Your task to perform on an android device: What's the weather like in Los Angeles? Image 0: 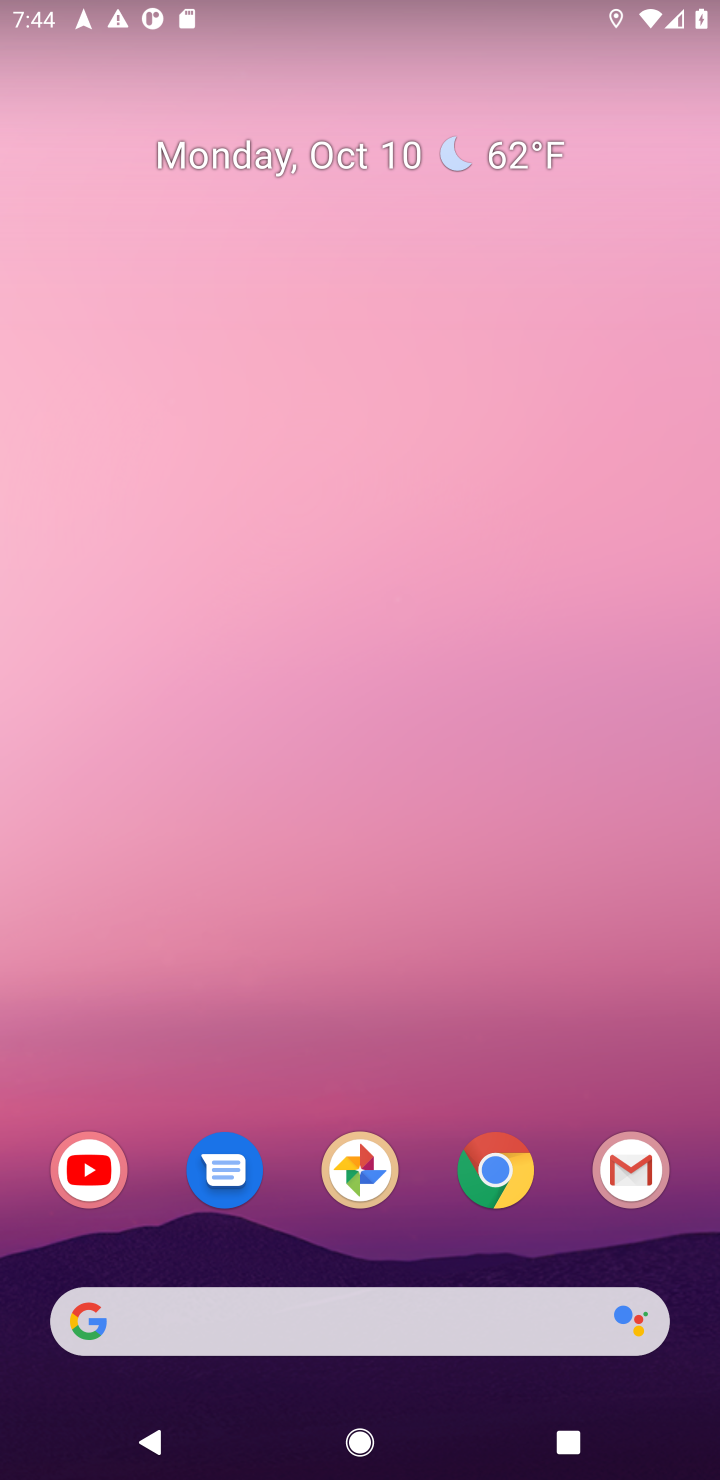
Step 0: click (486, 1171)
Your task to perform on an android device: What's the weather like in Los Angeles? Image 1: 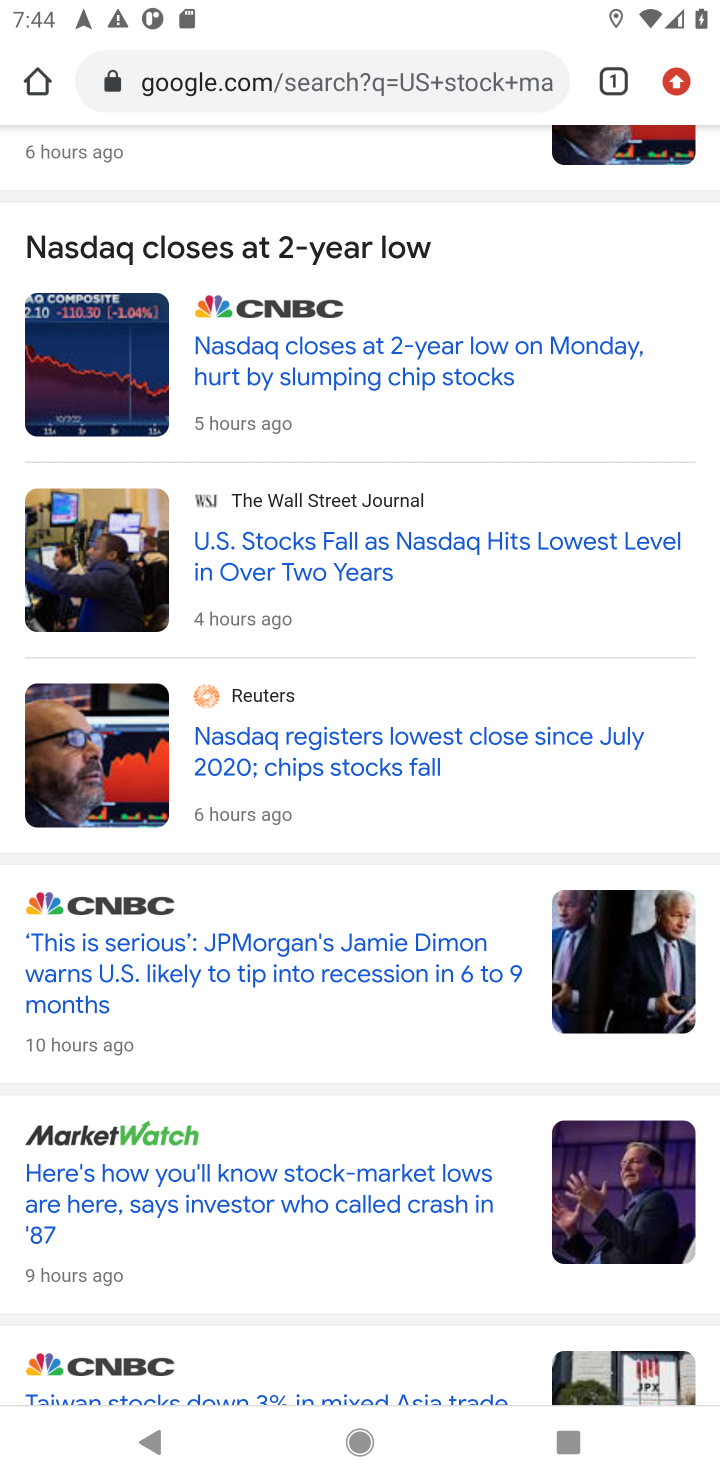
Step 1: click (343, 69)
Your task to perform on an android device: What's the weather like in Los Angeles? Image 2: 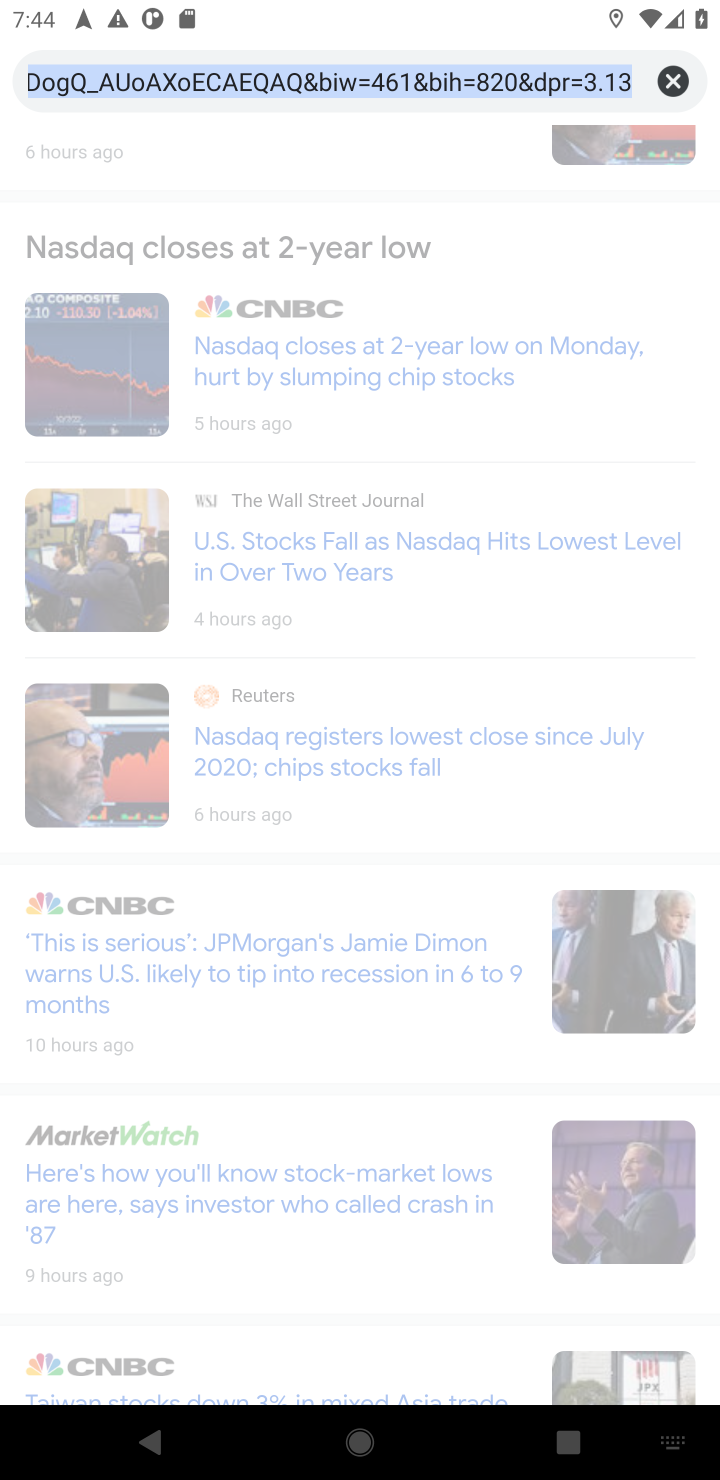
Step 2: type "weather like in Los Angeles?"
Your task to perform on an android device: What's the weather like in Los Angeles? Image 3: 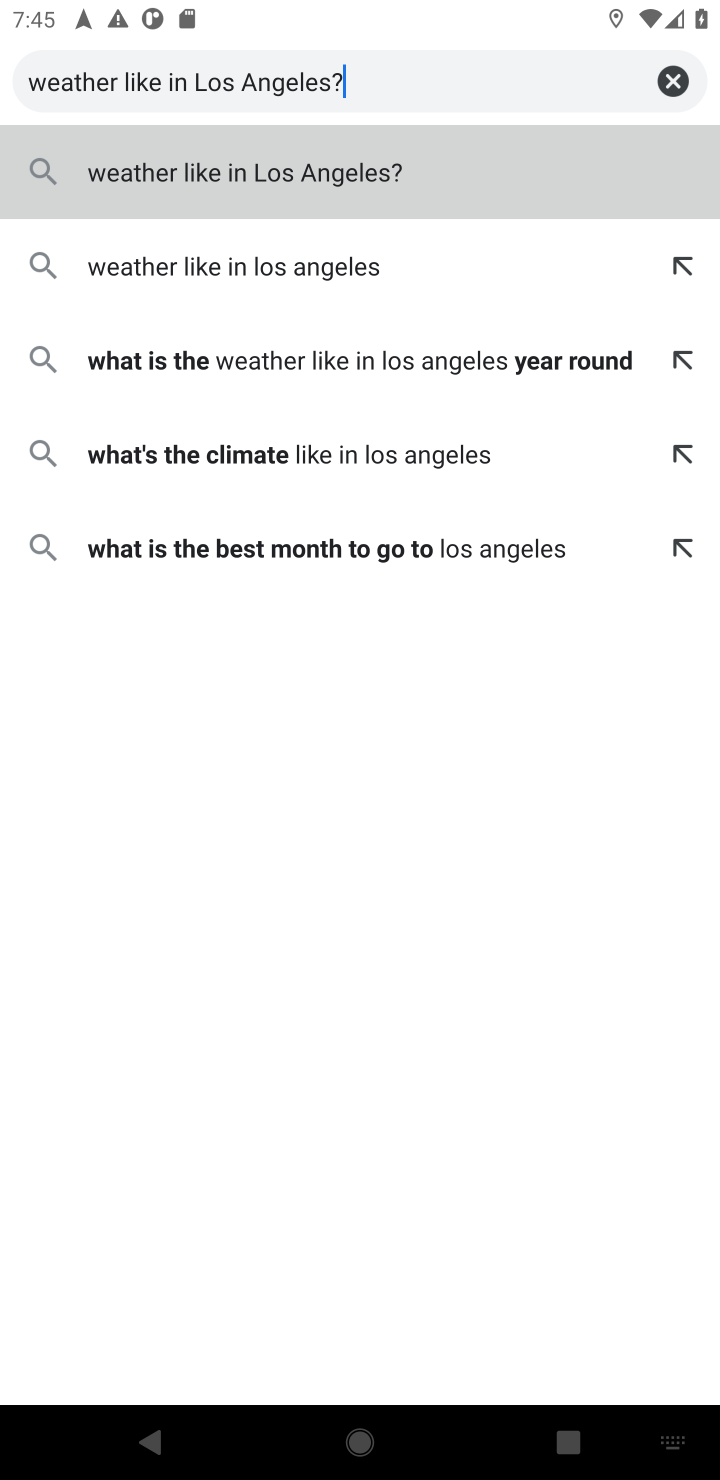
Step 3: click (427, 165)
Your task to perform on an android device: What's the weather like in Los Angeles? Image 4: 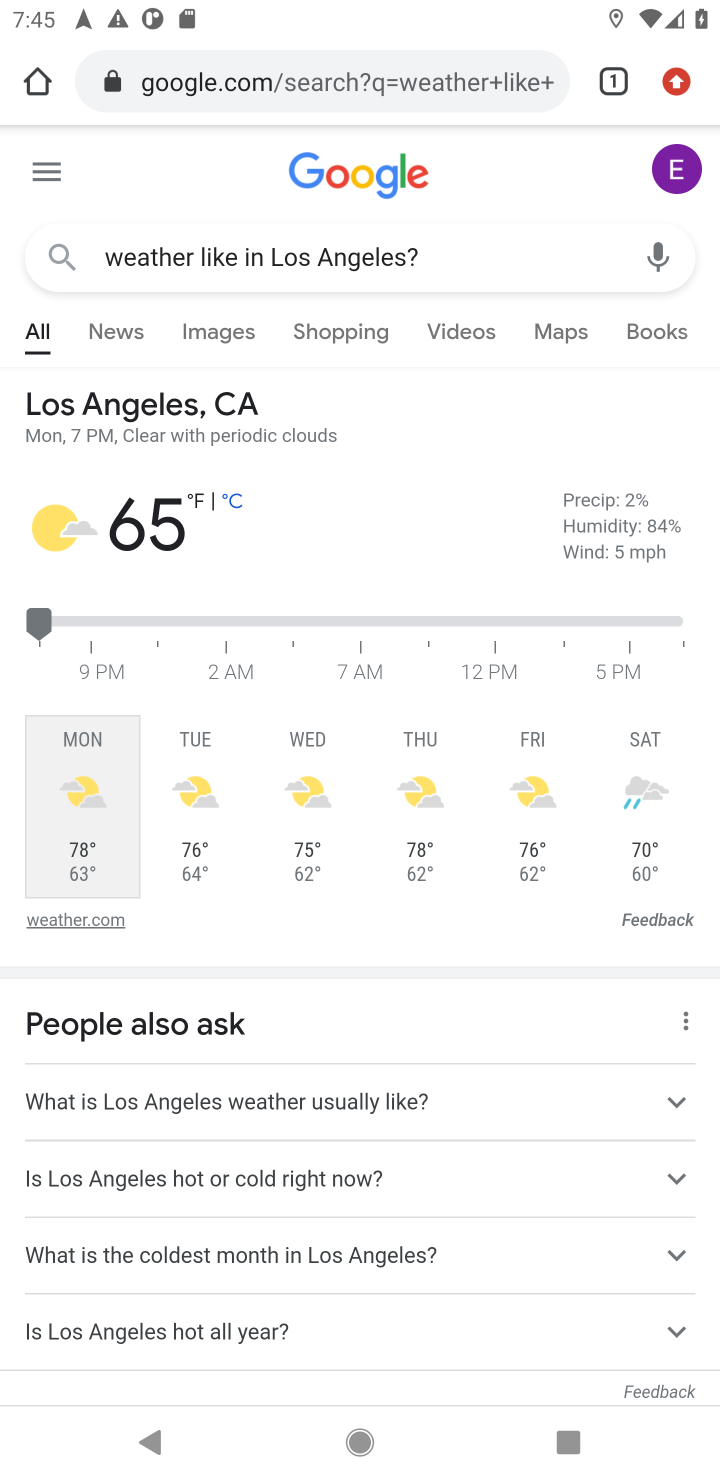
Step 4: task complete